Your task to perform on an android device: Open Yahoo.com Image 0: 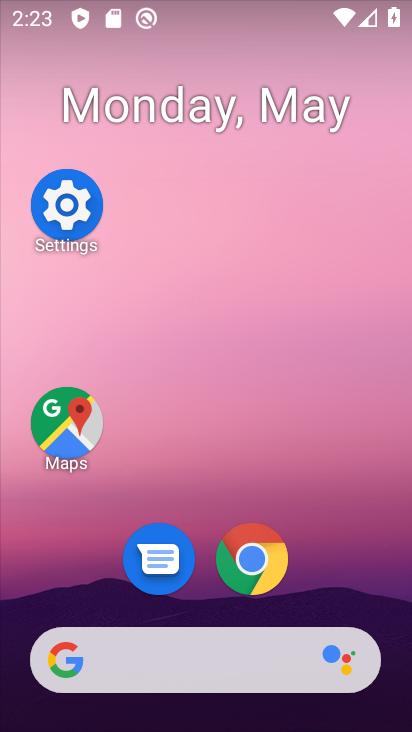
Step 0: click (281, 567)
Your task to perform on an android device: Open Yahoo.com Image 1: 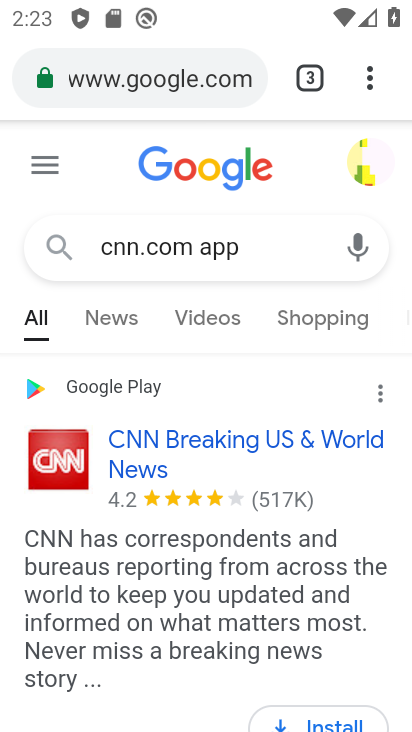
Step 1: click (304, 68)
Your task to perform on an android device: Open Yahoo.com Image 2: 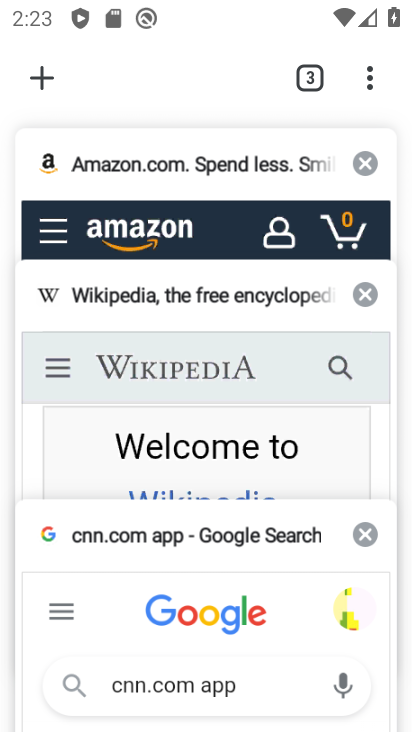
Step 2: click (58, 72)
Your task to perform on an android device: Open Yahoo.com Image 3: 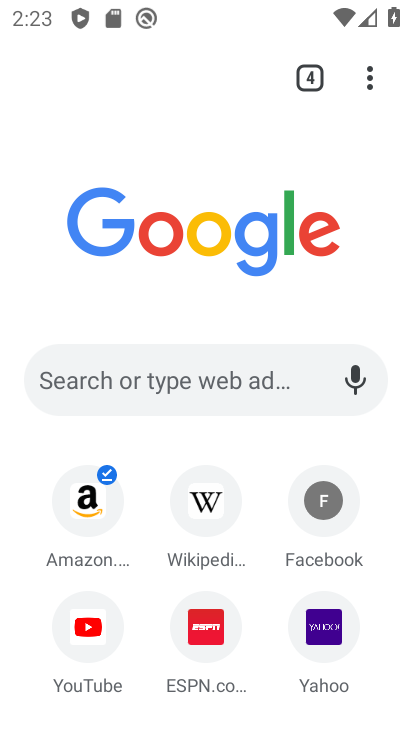
Step 3: click (321, 622)
Your task to perform on an android device: Open Yahoo.com Image 4: 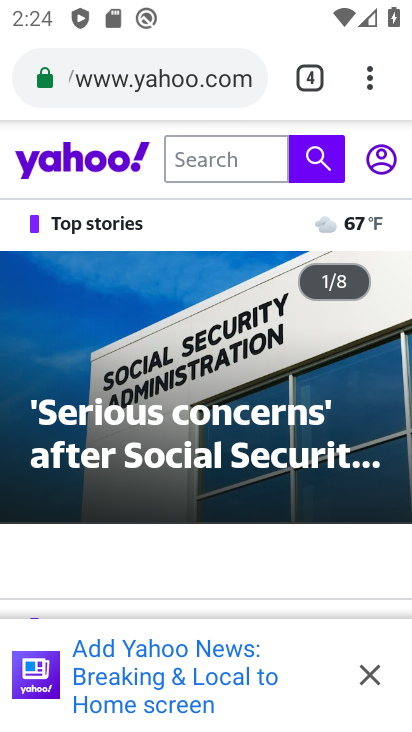
Step 4: task complete